Your task to perform on an android device: read, delete, or share a saved page in the chrome app Image 0: 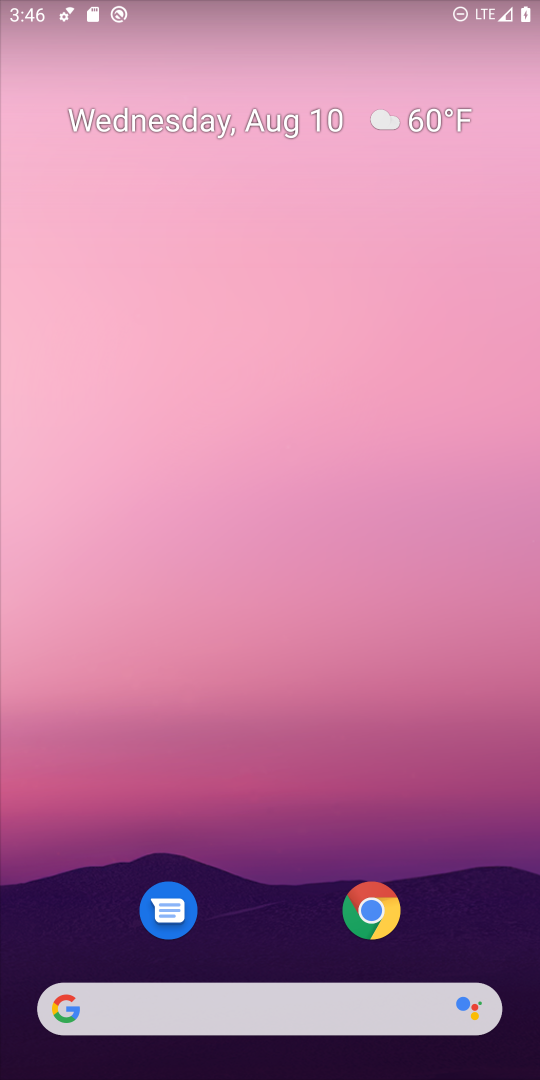
Step 0: click (352, 923)
Your task to perform on an android device: read, delete, or share a saved page in the chrome app Image 1: 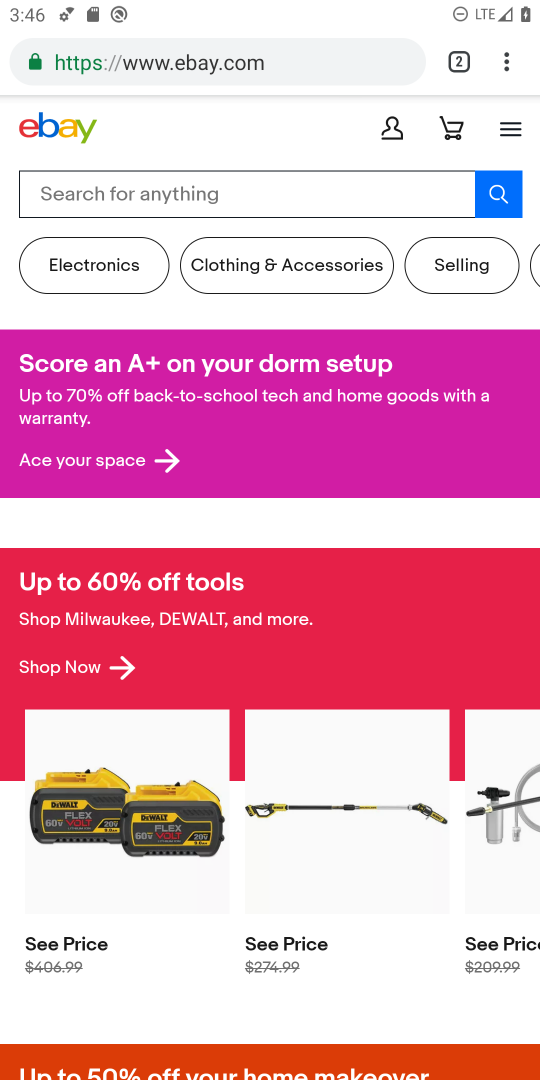
Step 1: click (463, 62)
Your task to perform on an android device: read, delete, or share a saved page in the chrome app Image 2: 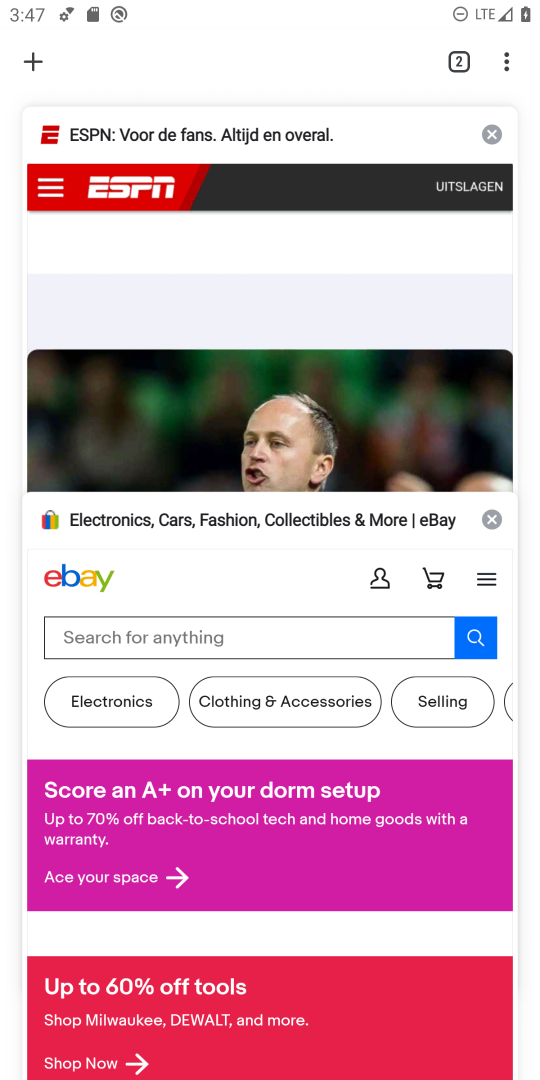
Step 2: click (500, 64)
Your task to perform on an android device: read, delete, or share a saved page in the chrome app Image 3: 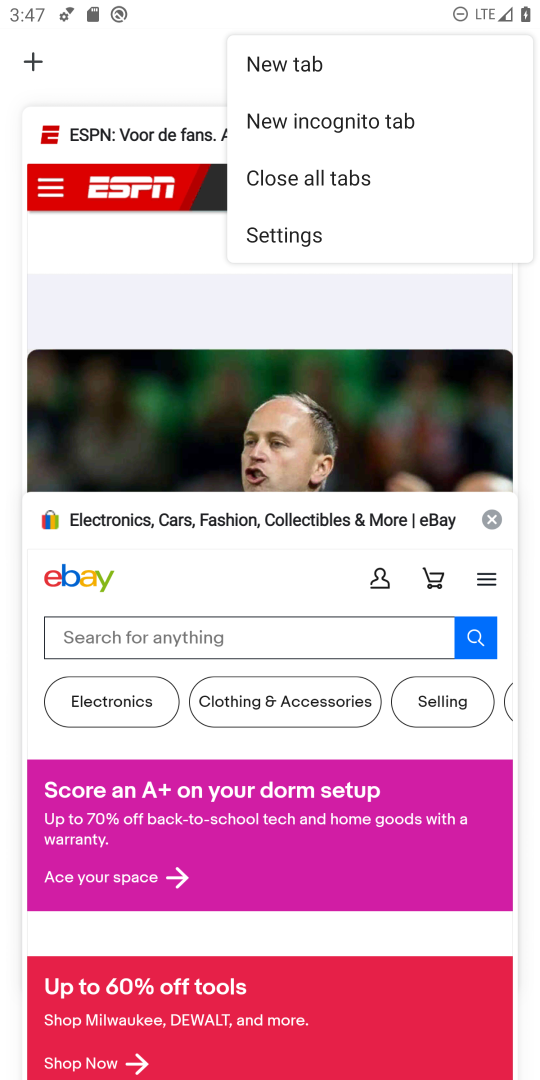
Step 3: click (187, 77)
Your task to perform on an android device: read, delete, or share a saved page in the chrome app Image 4: 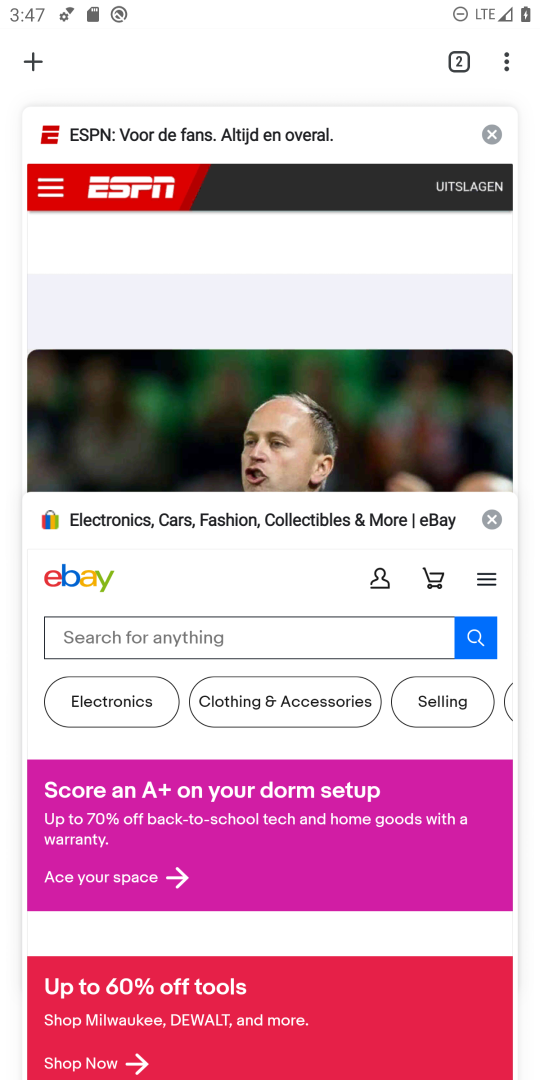
Step 4: click (489, 131)
Your task to perform on an android device: read, delete, or share a saved page in the chrome app Image 5: 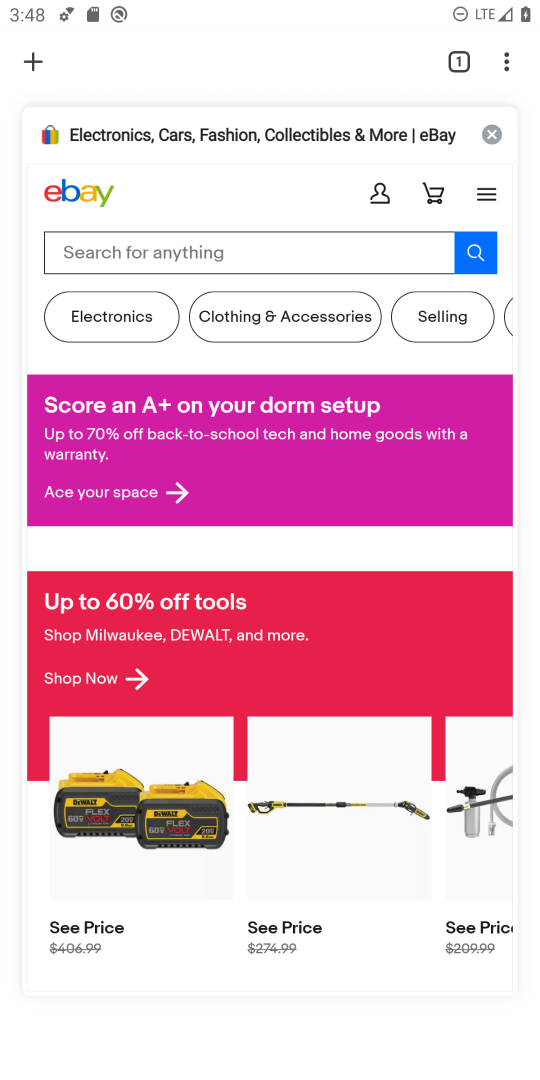
Step 5: task complete